Your task to perform on an android device: change the clock display to analog Image 0: 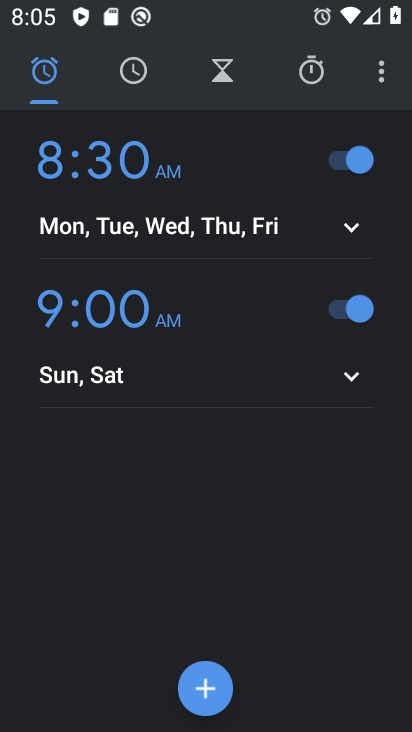
Step 0: press home button
Your task to perform on an android device: change the clock display to analog Image 1: 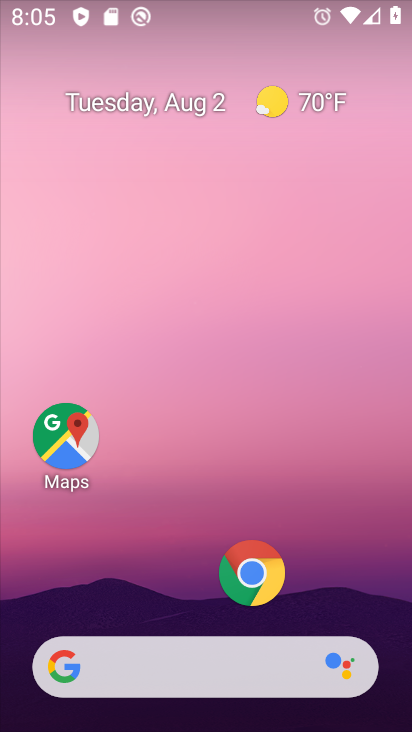
Step 1: drag from (188, 615) to (183, 108)
Your task to perform on an android device: change the clock display to analog Image 2: 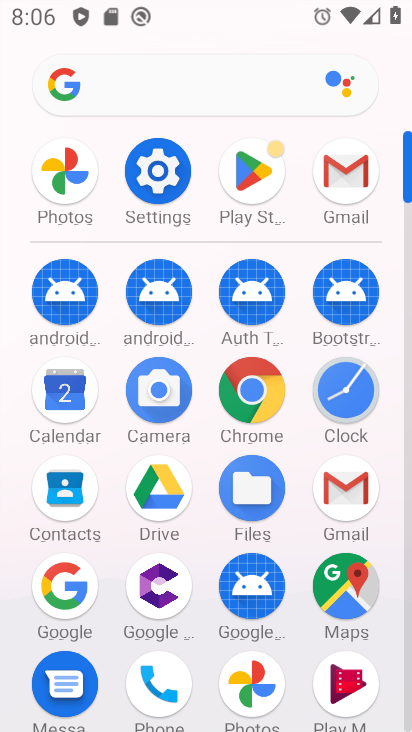
Step 2: click (343, 377)
Your task to perform on an android device: change the clock display to analog Image 3: 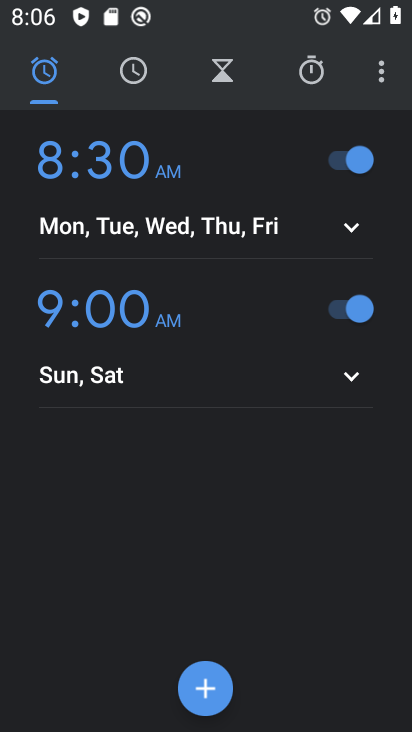
Step 3: click (383, 75)
Your task to perform on an android device: change the clock display to analog Image 4: 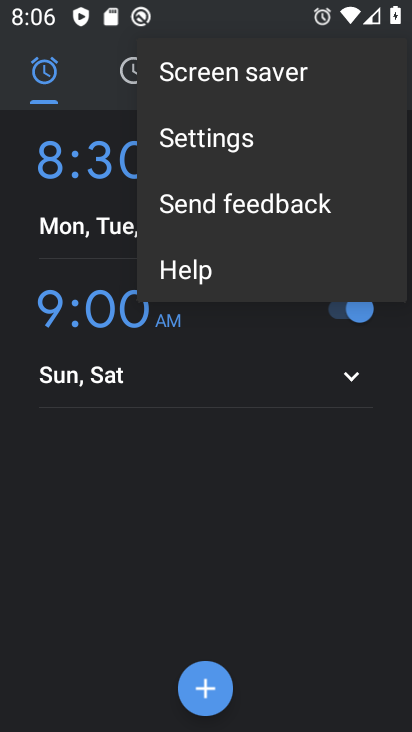
Step 4: click (263, 139)
Your task to perform on an android device: change the clock display to analog Image 5: 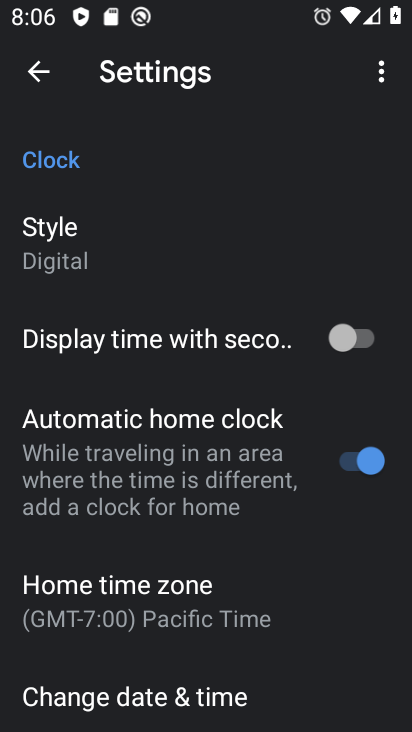
Step 5: click (97, 239)
Your task to perform on an android device: change the clock display to analog Image 6: 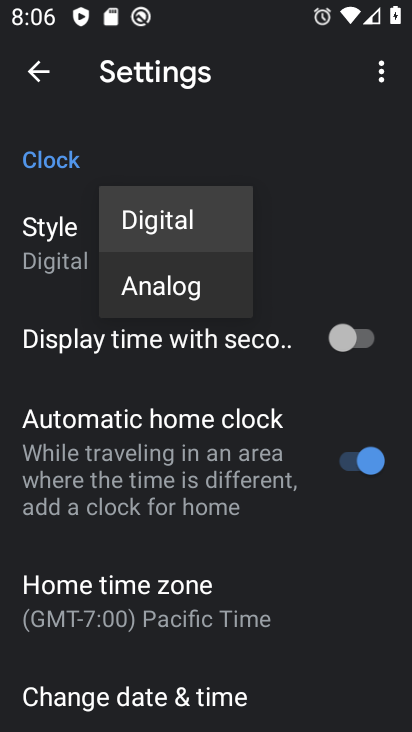
Step 6: click (167, 289)
Your task to perform on an android device: change the clock display to analog Image 7: 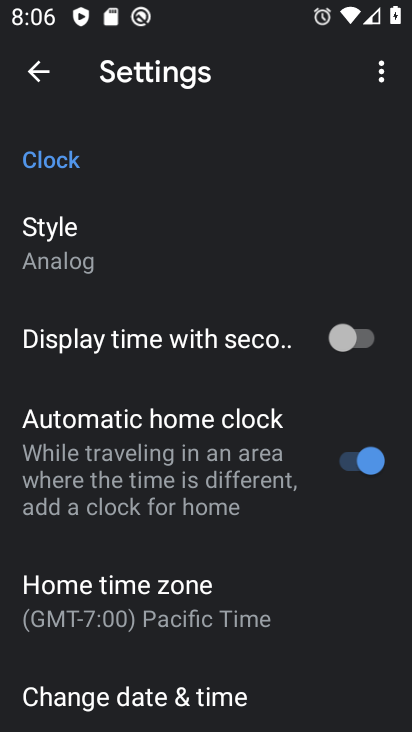
Step 7: task complete